Your task to perform on an android device: find snoozed emails in the gmail app Image 0: 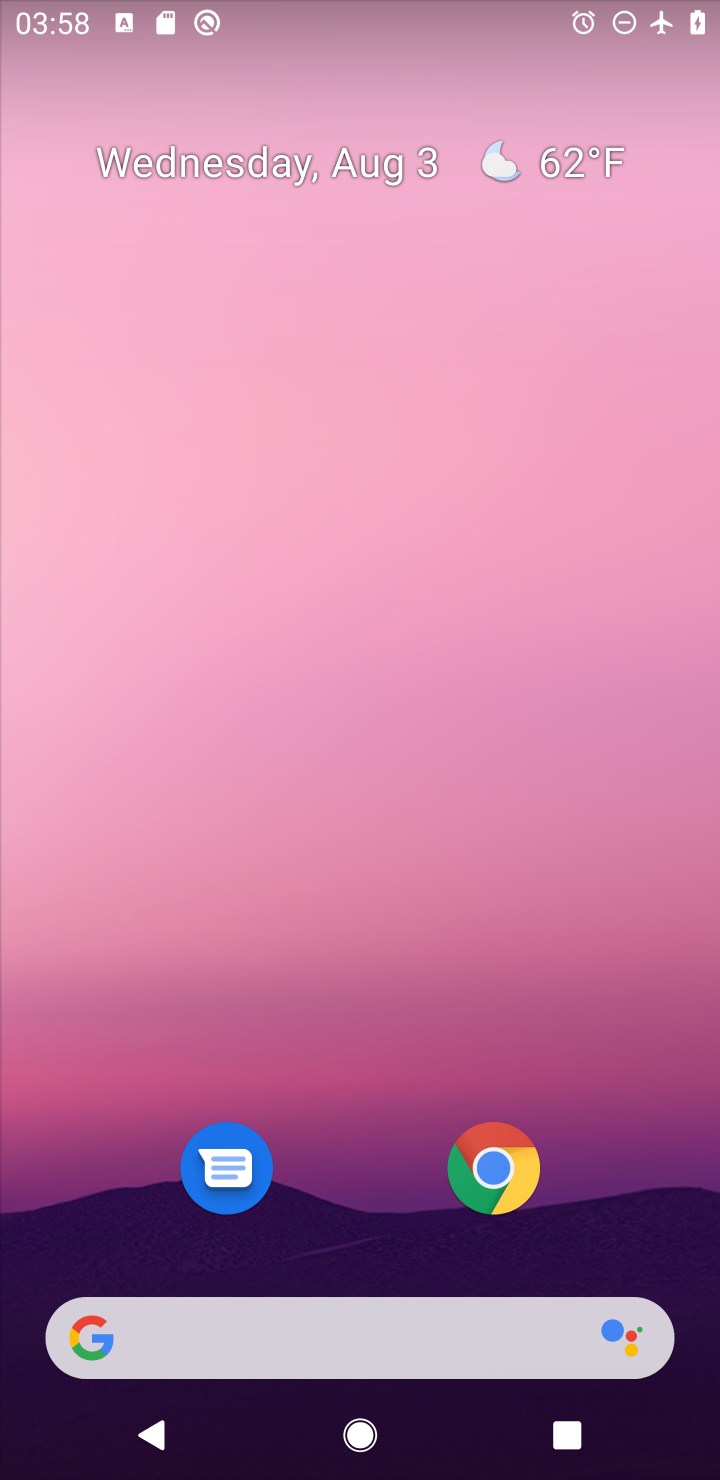
Step 0: drag from (677, 1180) to (646, 323)
Your task to perform on an android device: find snoozed emails in the gmail app Image 1: 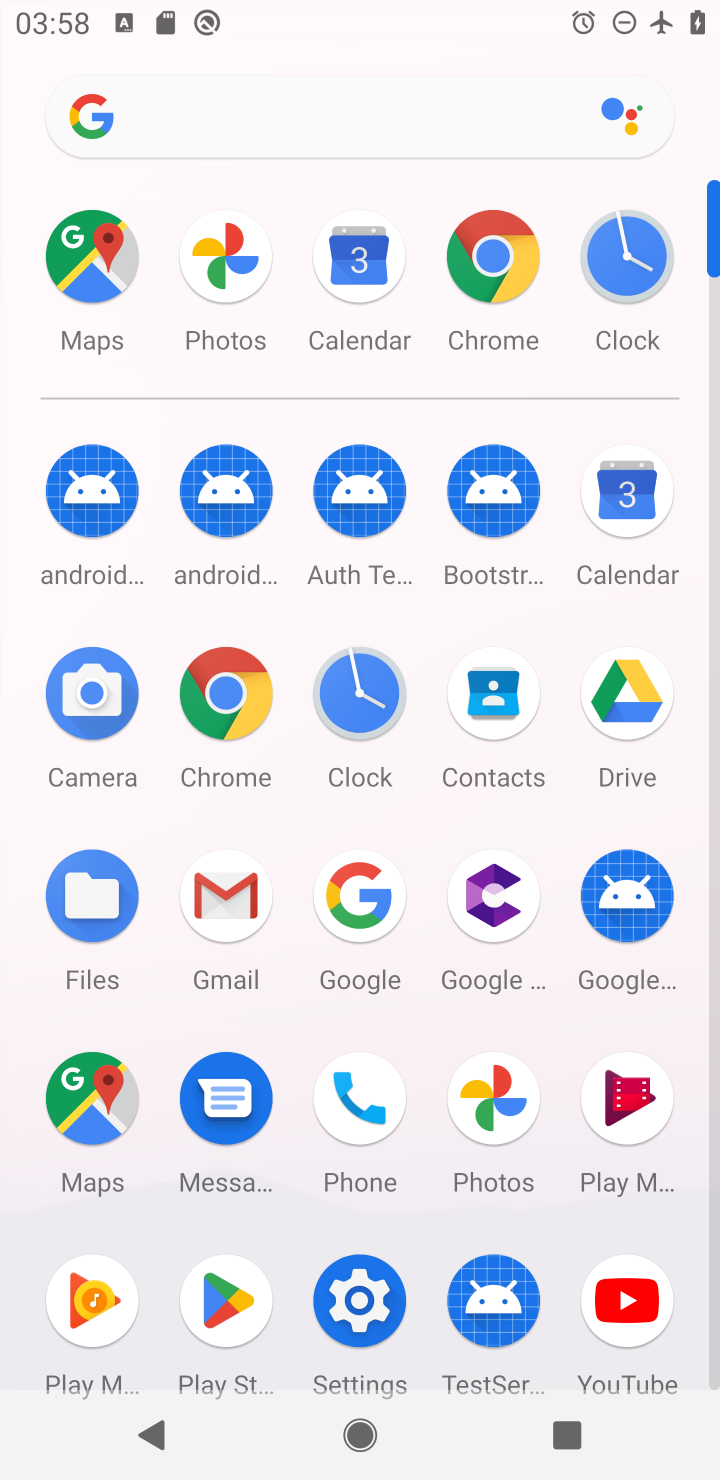
Step 1: click (225, 900)
Your task to perform on an android device: find snoozed emails in the gmail app Image 2: 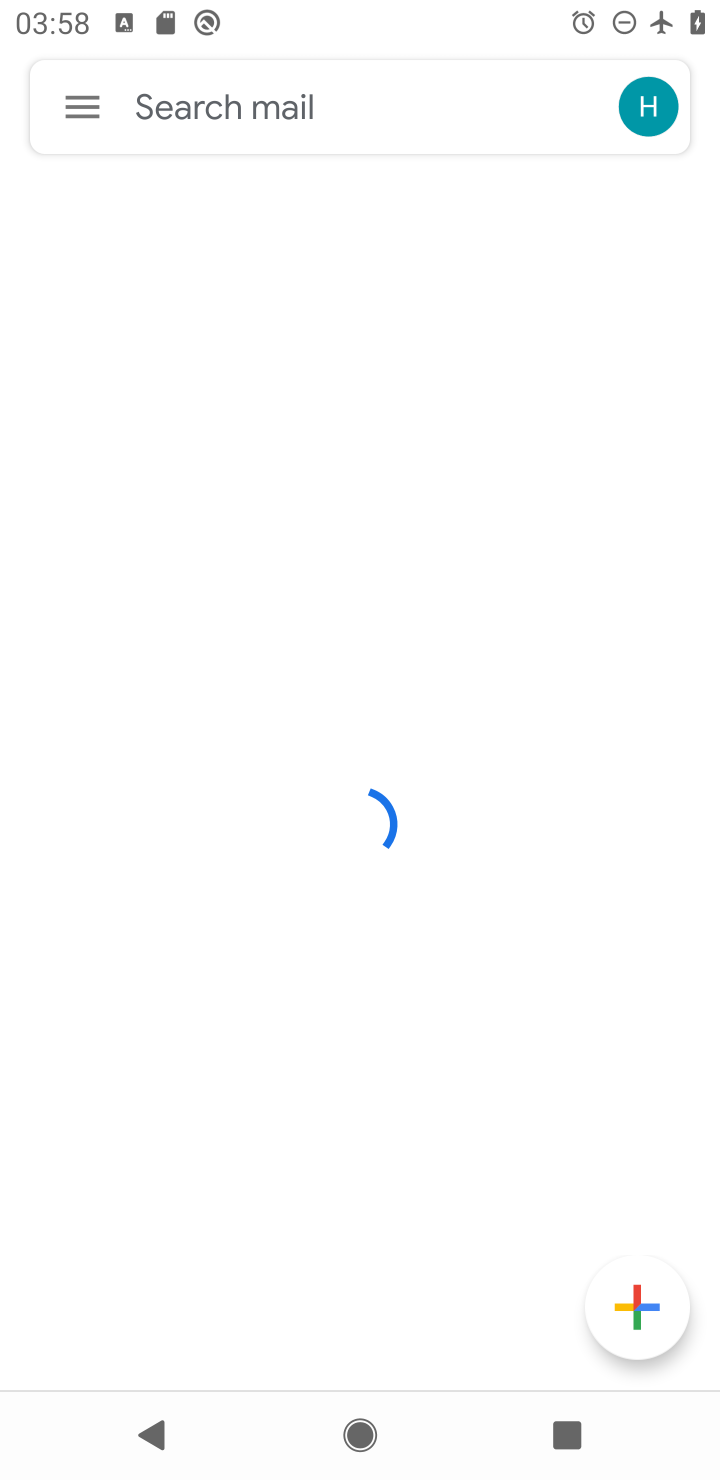
Step 2: click (74, 113)
Your task to perform on an android device: find snoozed emails in the gmail app Image 3: 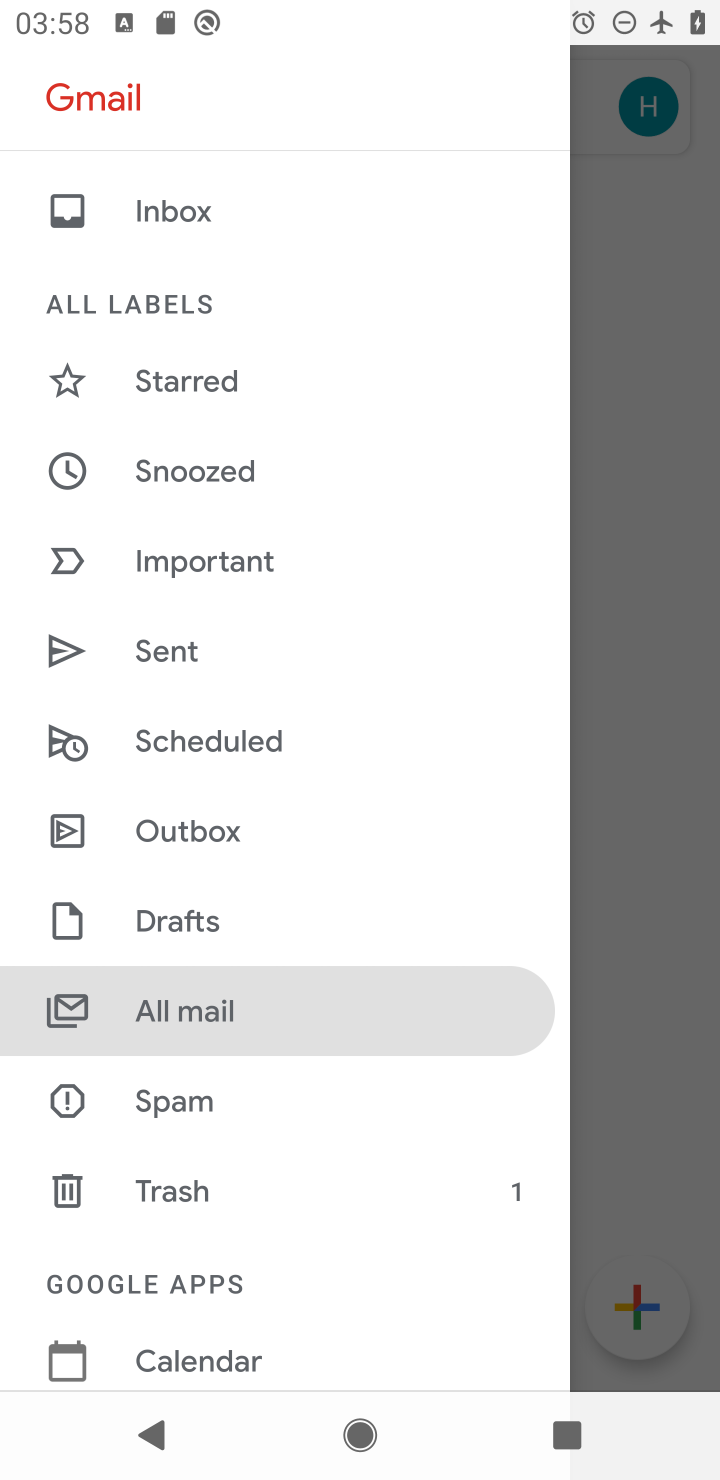
Step 3: click (180, 464)
Your task to perform on an android device: find snoozed emails in the gmail app Image 4: 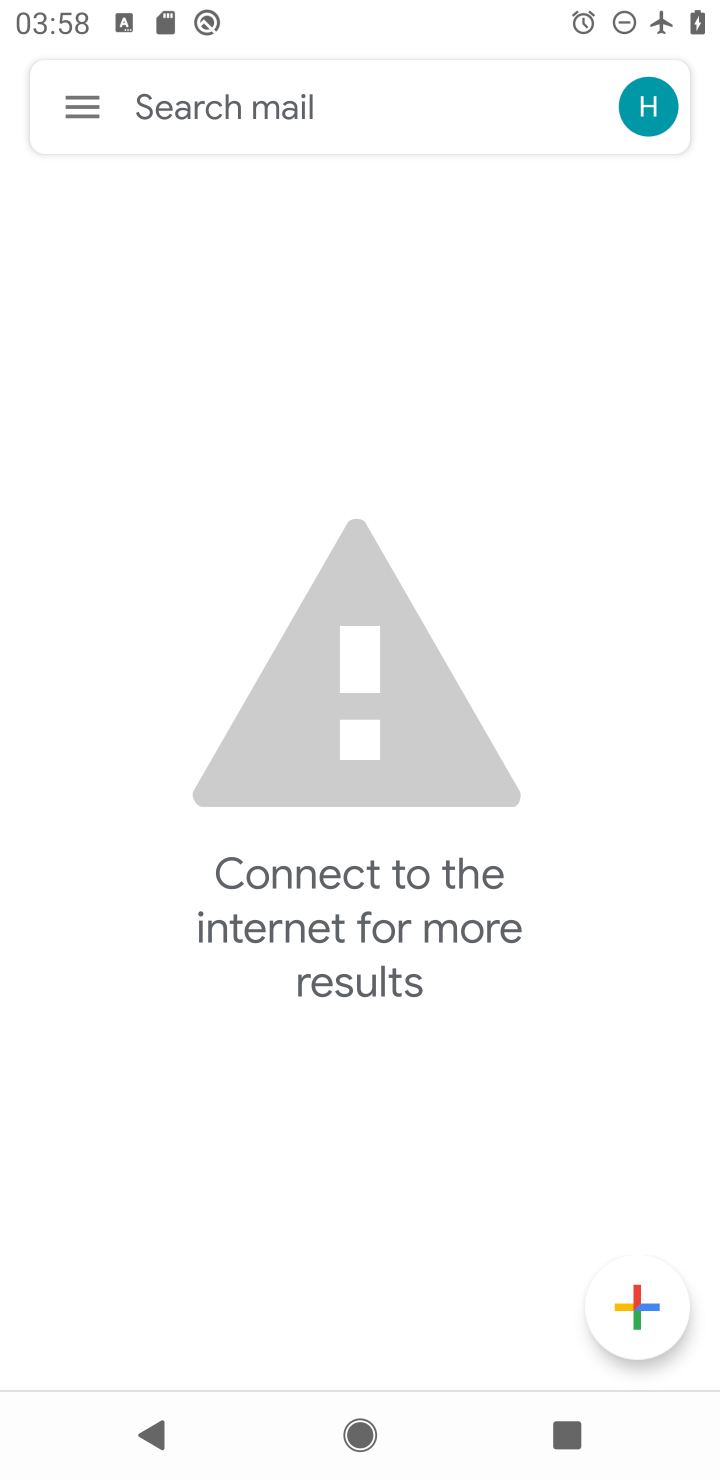
Step 4: task complete